Your task to perform on an android device: change the clock display to show seconds Image 0: 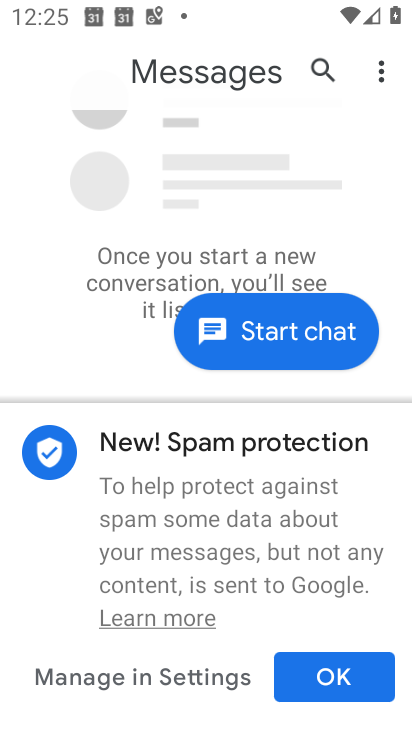
Step 0: press home button
Your task to perform on an android device: change the clock display to show seconds Image 1: 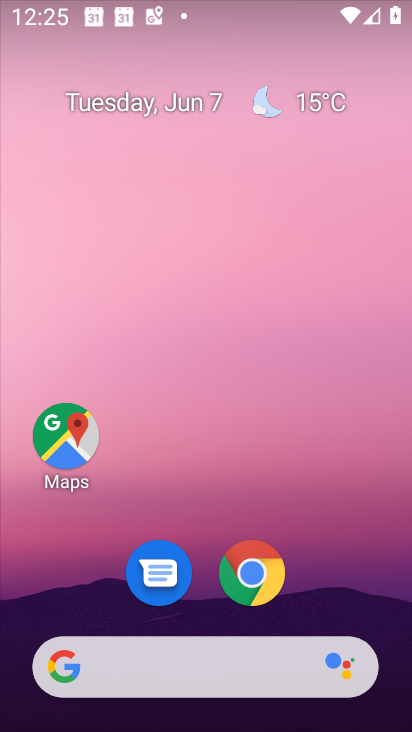
Step 1: drag from (351, 566) to (307, 123)
Your task to perform on an android device: change the clock display to show seconds Image 2: 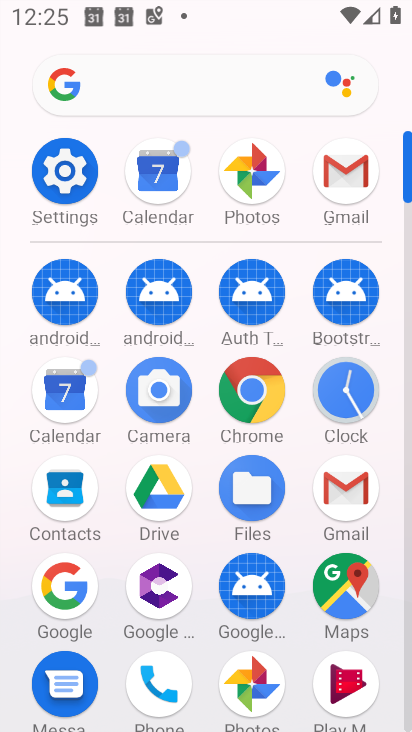
Step 2: click (341, 388)
Your task to perform on an android device: change the clock display to show seconds Image 3: 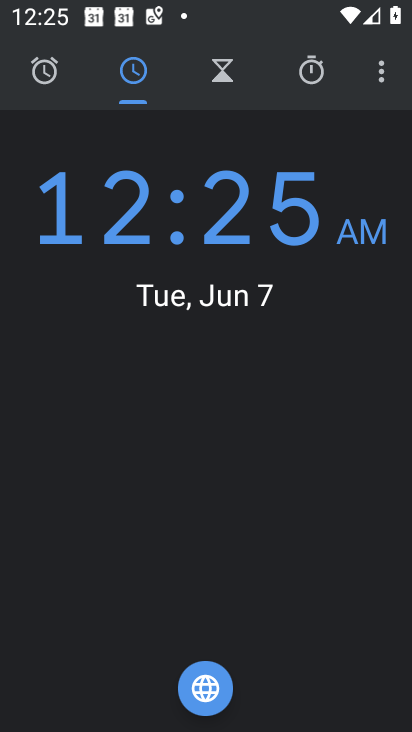
Step 3: click (382, 68)
Your task to perform on an android device: change the clock display to show seconds Image 4: 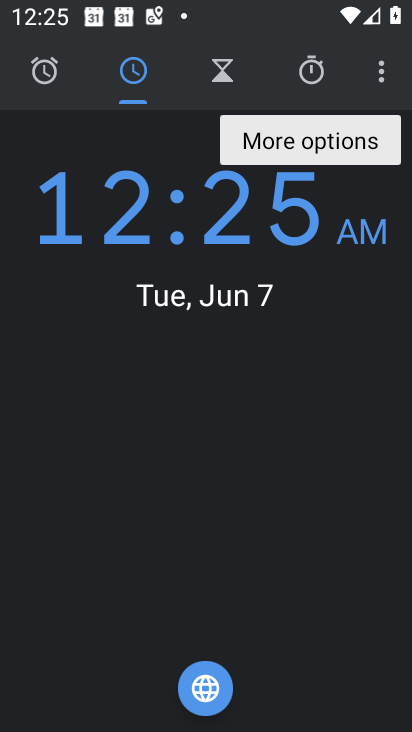
Step 4: click (382, 68)
Your task to perform on an android device: change the clock display to show seconds Image 5: 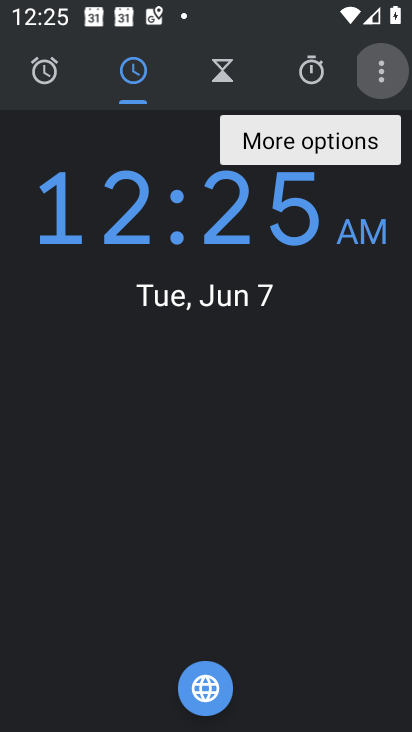
Step 5: click (382, 68)
Your task to perform on an android device: change the clock display to show seconds Image 6: 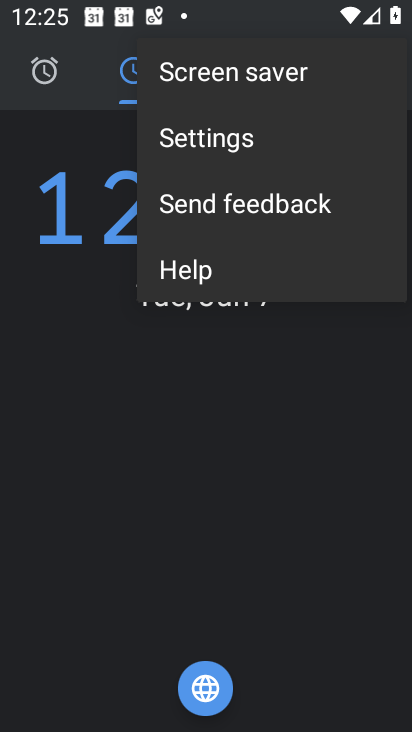
Step 6: click (200, 132)
Your task to perform on an android device: change the clock display to show seconds Image 7: 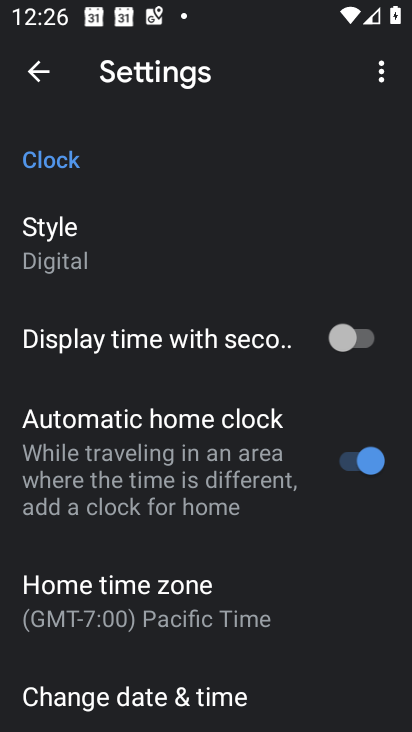
Step 7: click (371, 338)
Your task to perform on an android device: change the clock display to show seconds Image 8: 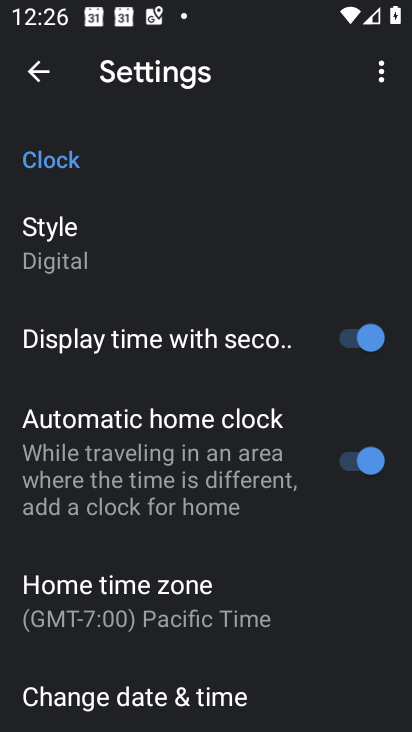
Step 8: task complete